Your task to perform on an android device: What time is it in Moscow? Image 0: 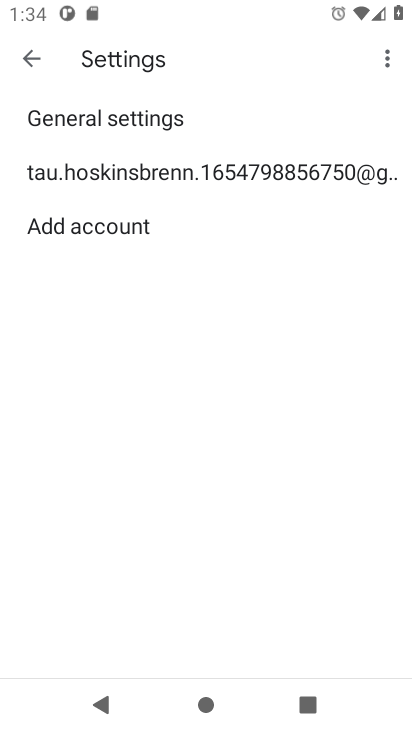
Step 0: press home button
Your task to perform on an android device: What time is it in Moscow? Image 1: 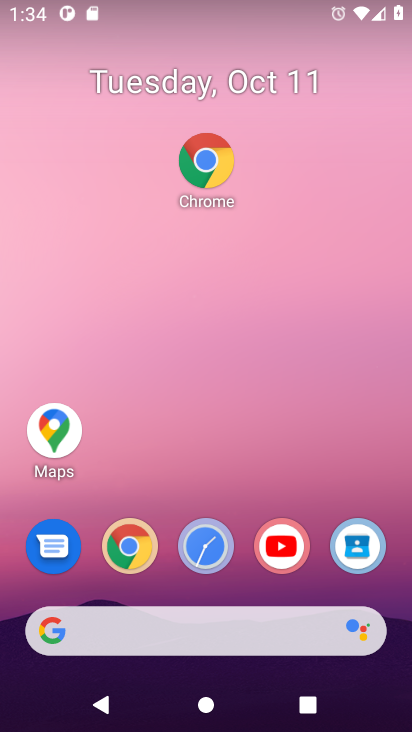
Step 1: click (125, 546)
Your task to perform on an android device: What time is it in Moscow? Image 2: 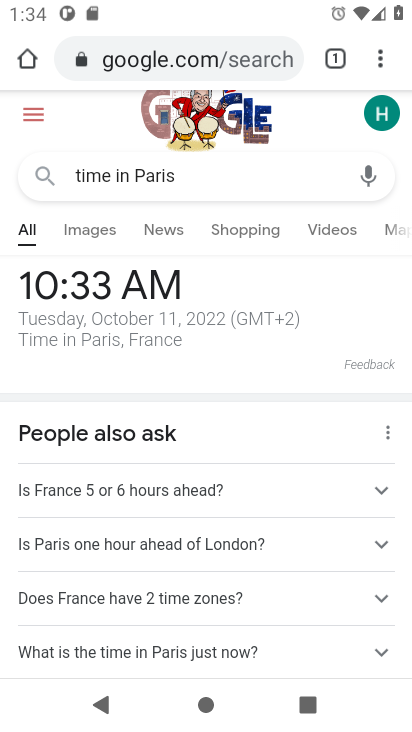
Step 2: click (177, 59)
Your task to perform on an android device: What time is it in Moscow? Image 3: 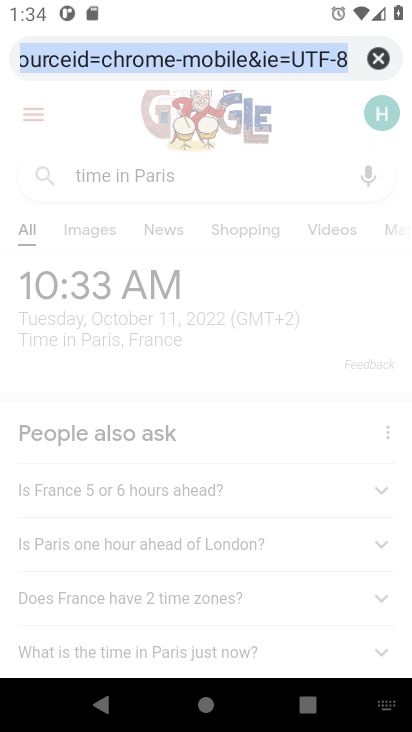
Step 3: type "time in Moscow"
Your task to perform on an android device: What time is it in Moscow? Image 4: 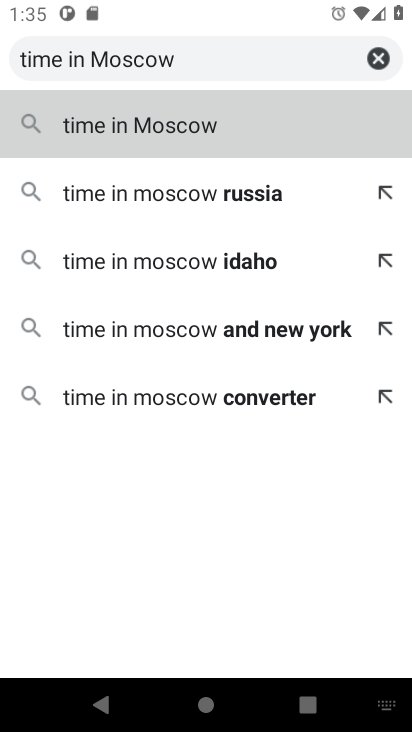
Step 4: press enter
Your task to perform on an android device: What time is it in Moscow? Image 5: 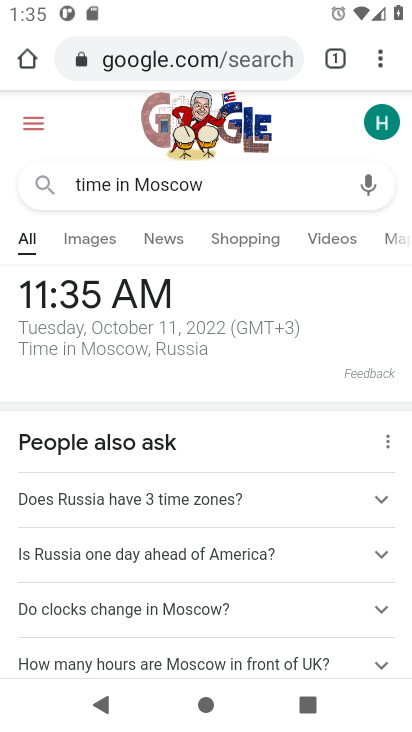
Step 5: task complete